Your task to perform on an android device: check out phone information Image 0: 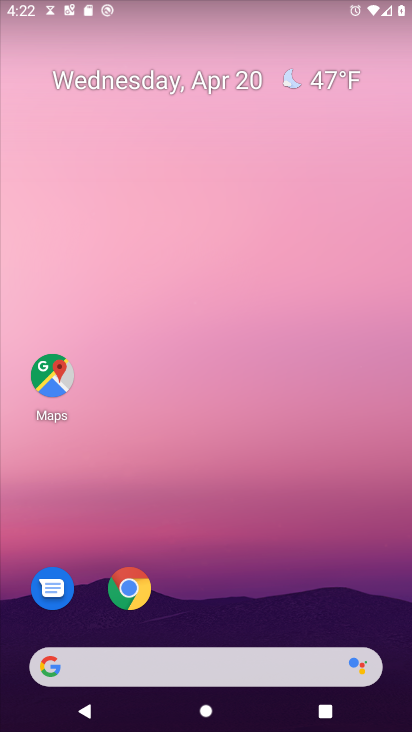
Step 0: drag from (287, 603) to (335, 80)
Your task to perform on an android device: check out phone information Image 1: 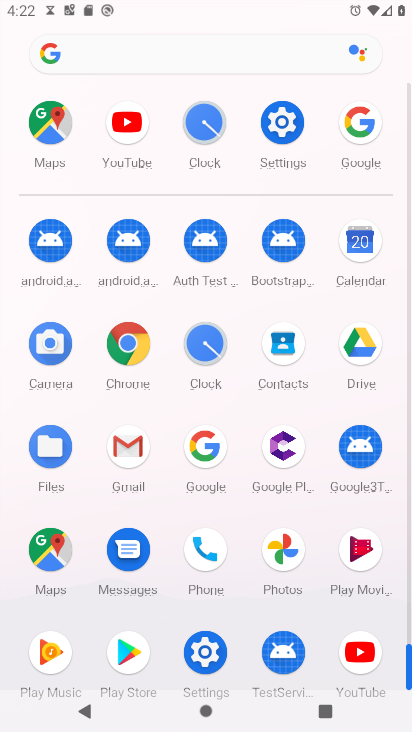
Step 1: click (280, 123)
Your task to perform on an android device: check out phone information Image 2: 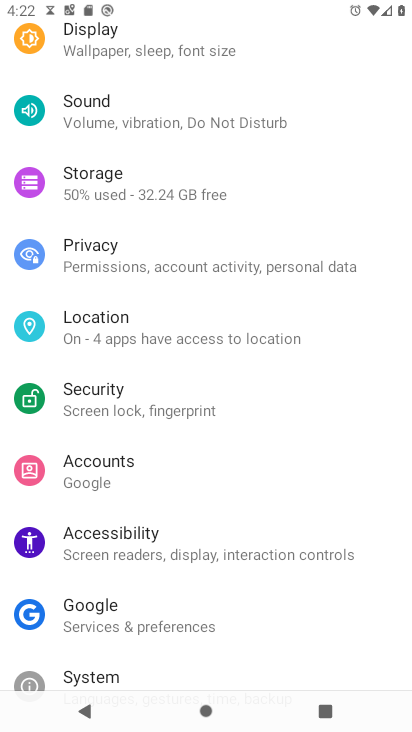
Step 2: drag from (182, 438) to (181, 397)
Your task to perform on an android device: check out phone information Image 3: 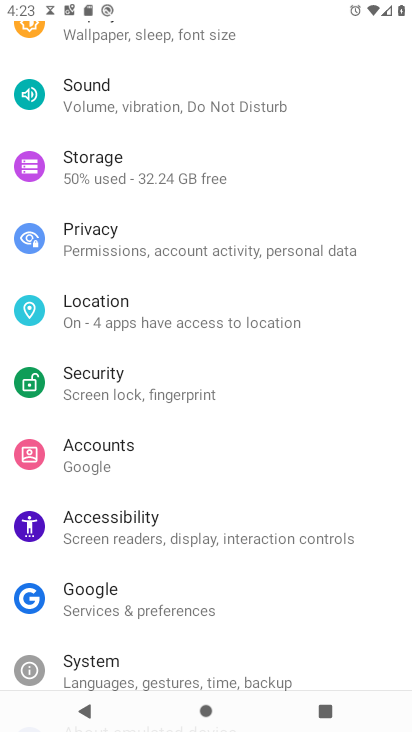
Step 3: click (174, 424)
Your task to perform on an android device: check out phone information Image 4: 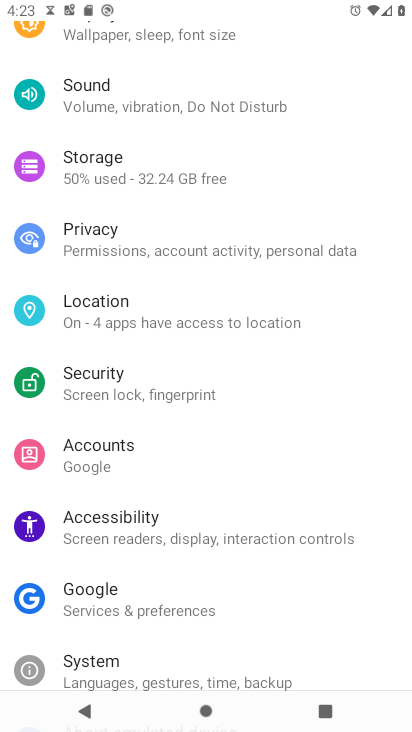
Step 4: drag from (185, 479) to (185, 410)
Your task to perform on an android device: check out phone information Image 5: 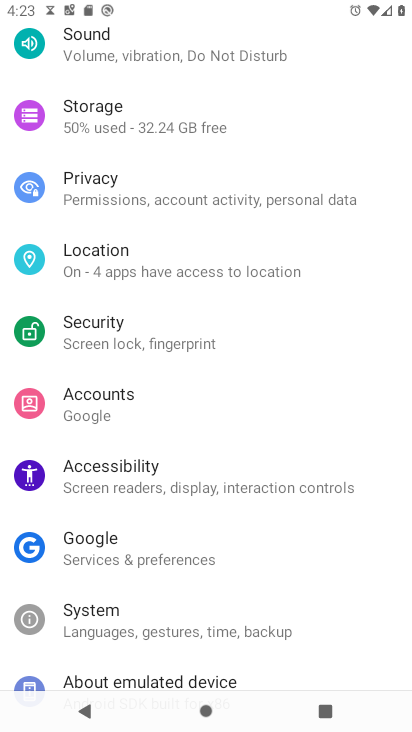
Step 5: drag from (175, 501) to (169, 429)
Your task to perform on an android device: check out phone information Image 6: 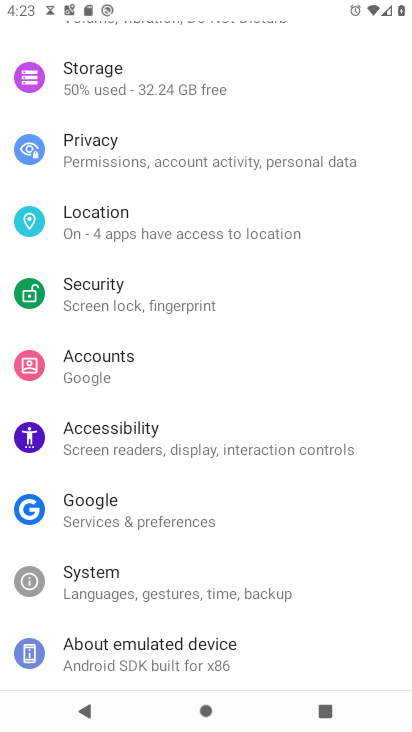
Step 6: click (125, 658)
Your task to perform on an android device: check out phone information Image 7: 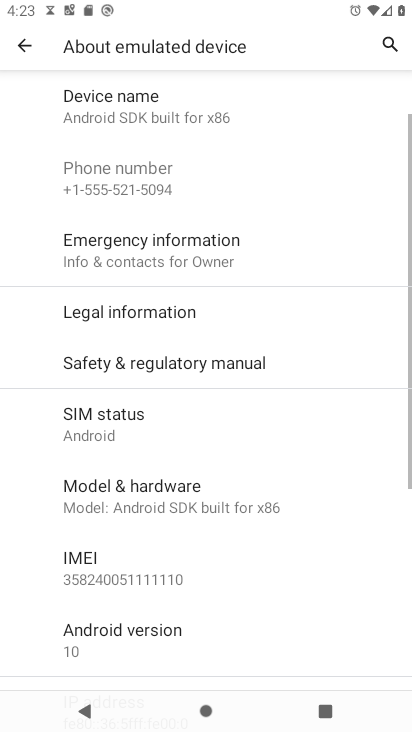
Step 7: task complete